Your task to perform on an android device: Show me popular games on the Play Store Image 0: 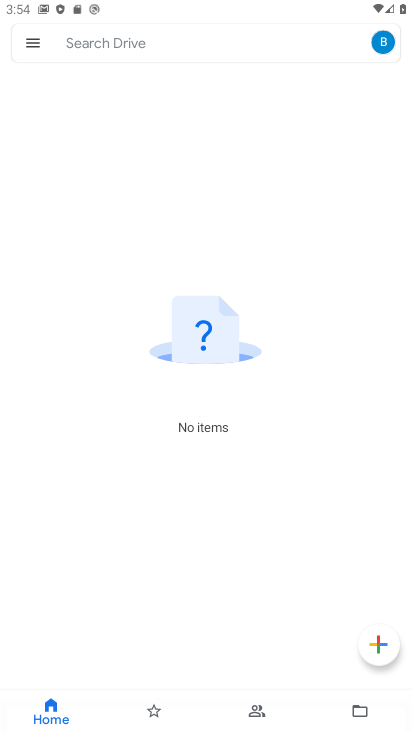
Step 0: press home button
Your task to perform on an android device: Show me popular games on the Play Store Image 1: 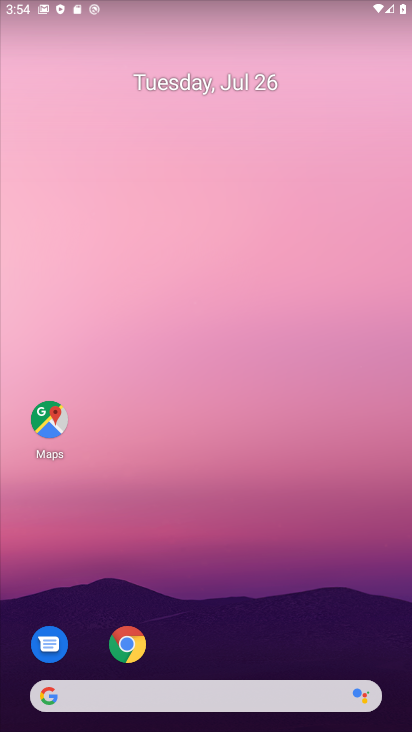
Step 1: drag from (383, 662) to (338, 51)
Your task to perform on an android device: Show me popular games on the Play Store Image 2: 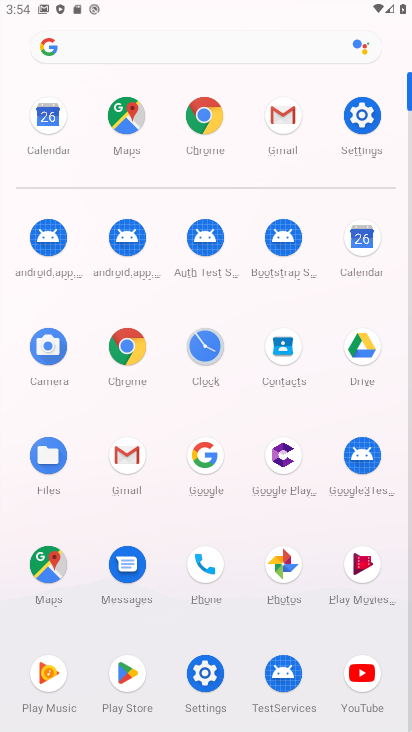
Step 2: click (129, 670)
Your task to perform on an android device: Show me popular games on the Play Store Image 3: 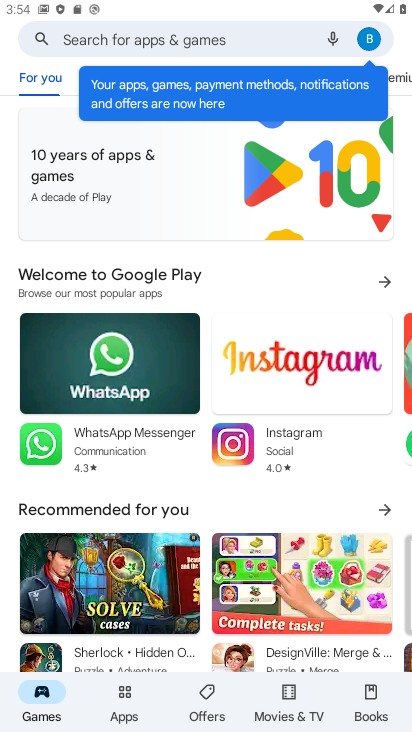
Step 3: drag from (209, 634) to (217, 263)
Your task to perform on an android device: Show me popular games on the Play Store Image 4: 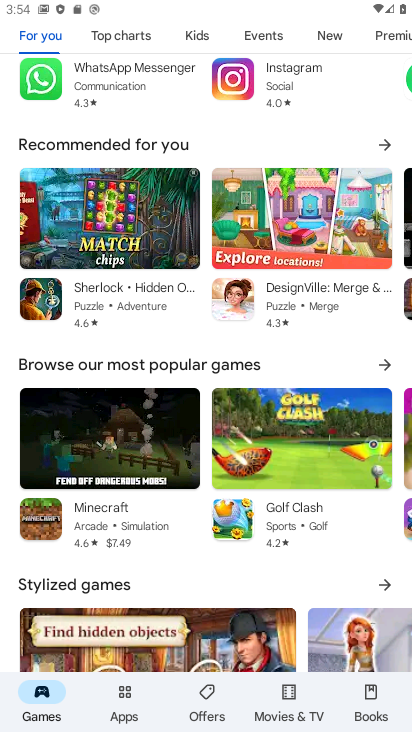
Step 4: drag from (198, 584) to (203, 423)
Your task to perform on an android device: Show me popular games on the Play Store Image 5: 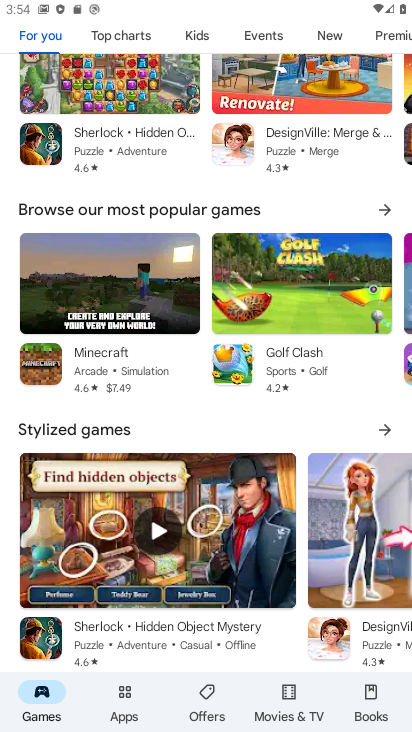
Step 5: click (386, 207)
Your task to perform on an android device: Show me popular games on the Play Store Image 6: 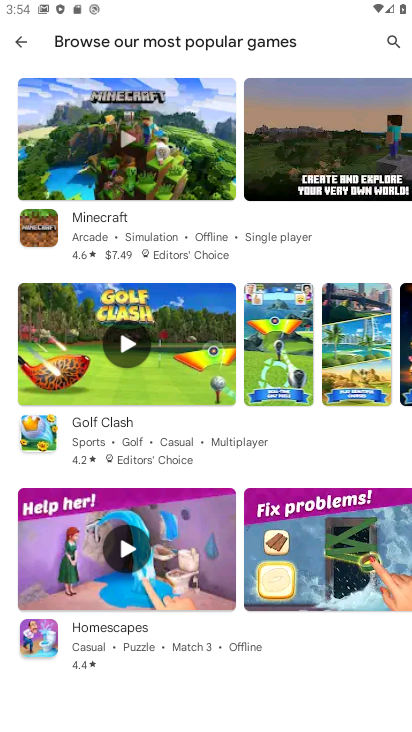
Step 6: task complete